Your task to perform on an android device: Open Google Maps and go to "Timeline" Image 0: 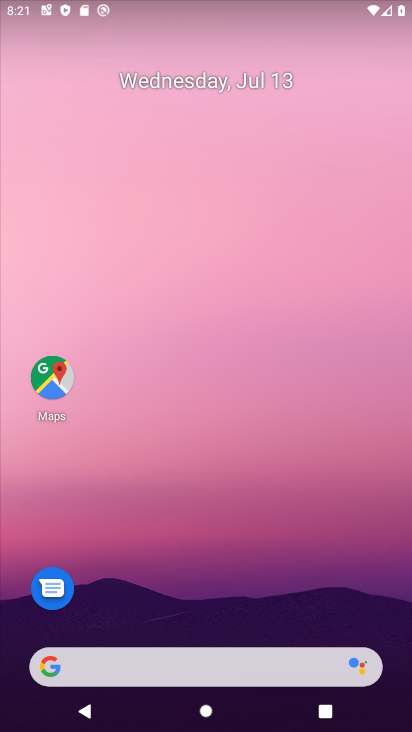
Step 0: click (64, 373)
Your task to perform on an android device: Open Google Maps and go to "Timeline" Image 1: 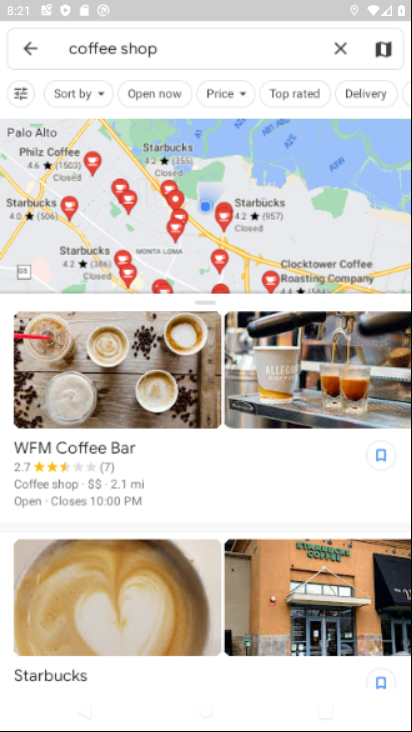
Step 1: click (348, 49)
Your task to perform on an android device: Open Google Maps and go to "Timeline" Image 2: 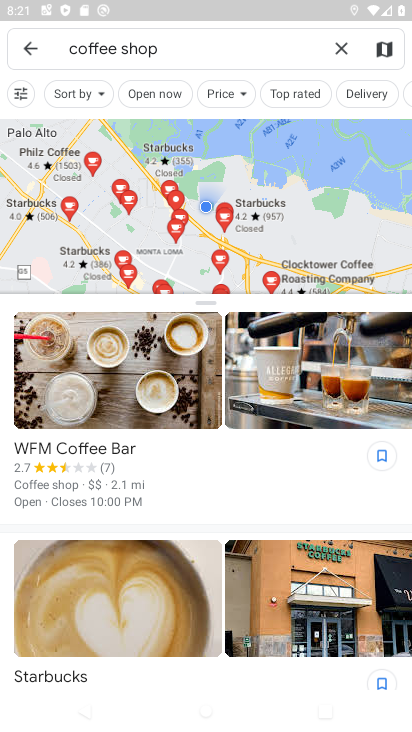
Step 2: click (338, 45)
Your task to perform on an android device: Open Google Maps and go to "Timeline" Image 3: 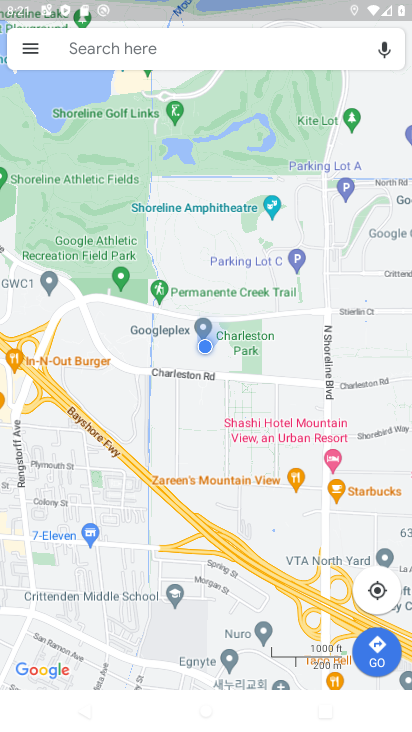
Step 3: click (31, 48)
Your task to perform on an android device: Open Google Maps and go to "Timeline" Image 4: 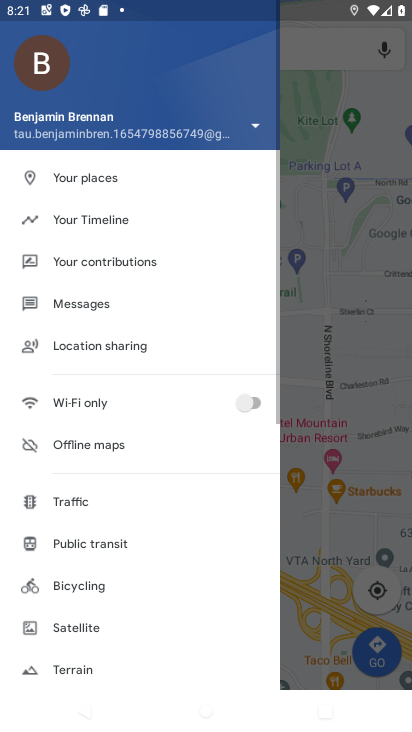
Step 4: click (126, 217)
Your task to perform on an android device: Open Google Maps and go to "Timeline" Image 5: 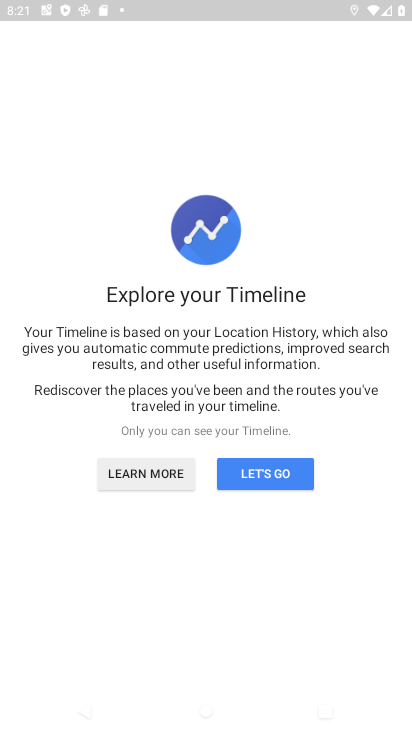
Step 5: click (279, 472)
Your task to perform on an android device: Open Google Maps and go to "Timeline" Image 6: 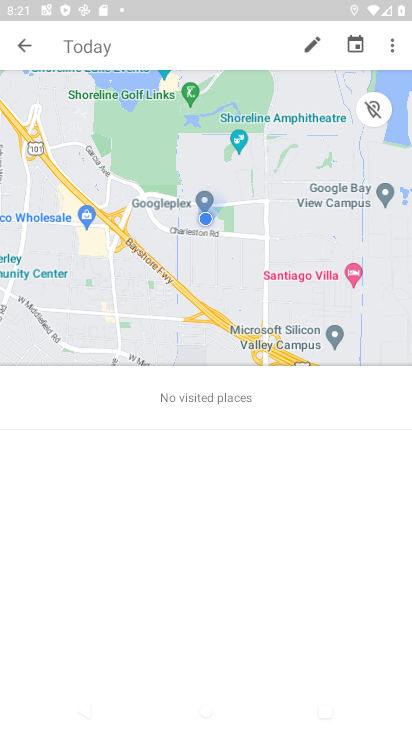
Step 6: task complete